Your task to perform on an android device: toggle notifications settings in the gmail app Image 0: 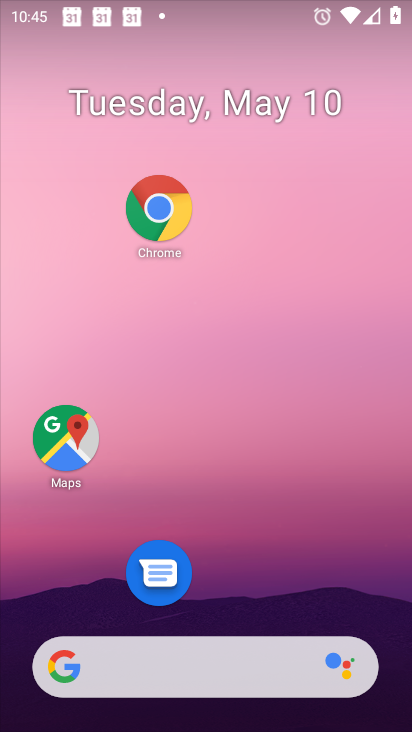
Step 0: drag from (282, 655) to (239, 212)
Your task to perform on an android device: toggle notifications settings in the gmail app Image 1: 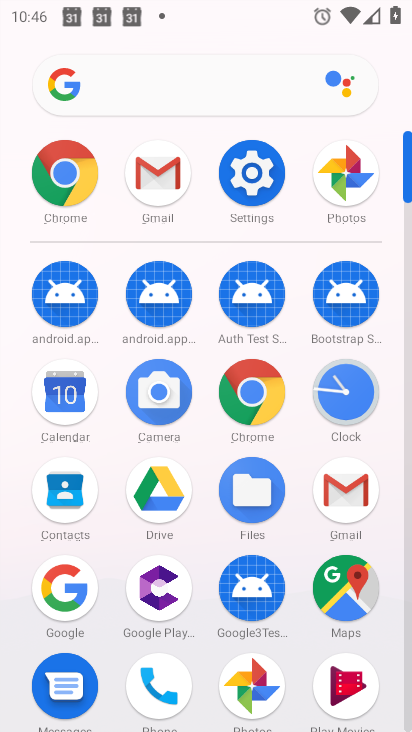
Step 1: click (355, 485)
Your task to perform on an android device: toggle notifications settings in the gmail app Image 2: 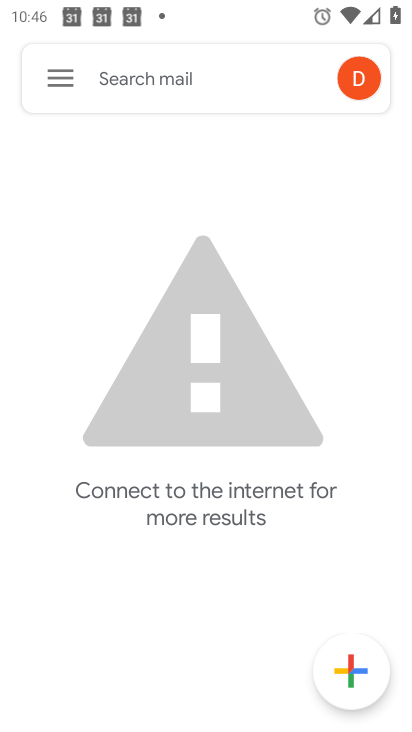
Step 2: click (62, 82)
Your task to perform on an android device: toggle notifications settings in the gmail app Image 3: 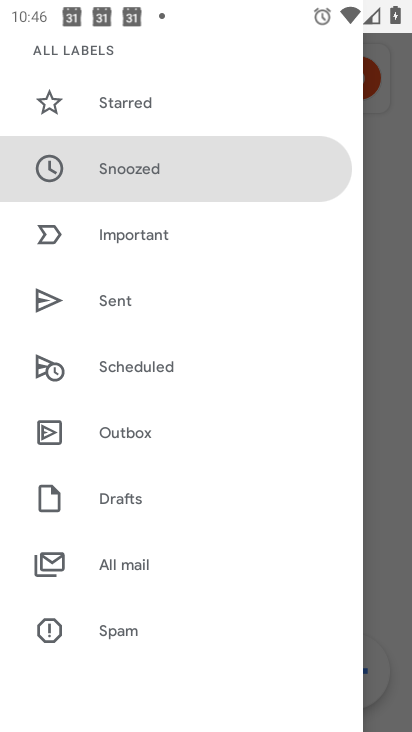
Step 3: drag from (143, 600) to (196, 390)
Your task to perform on an android device: toggle notifications settings in the gmail app Image 4: 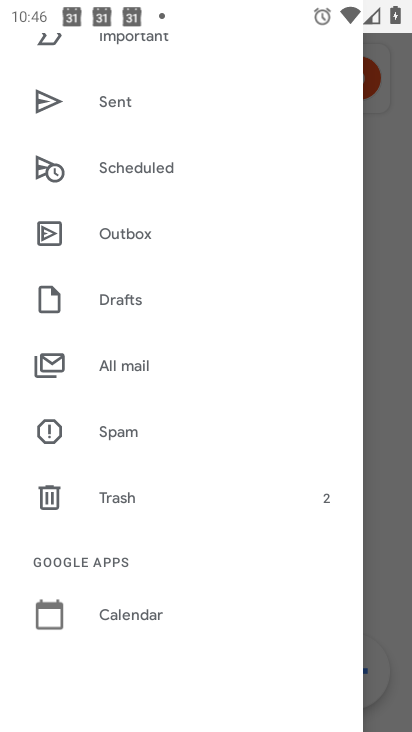
Step 4: drag from (151, 607) to (175, 427)
Your task to perform on an android device: toggle notifications settings in the gmail app Image 5: 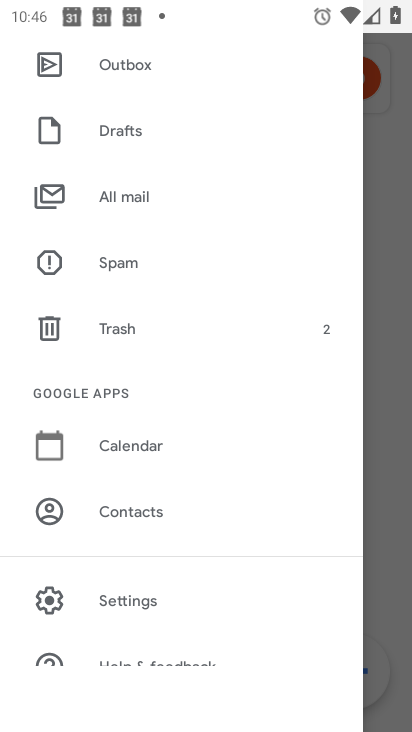
Step 5: click (131, 592)
Your task to perform on an android device: toggle notifications settings in the gmail app Image 6: 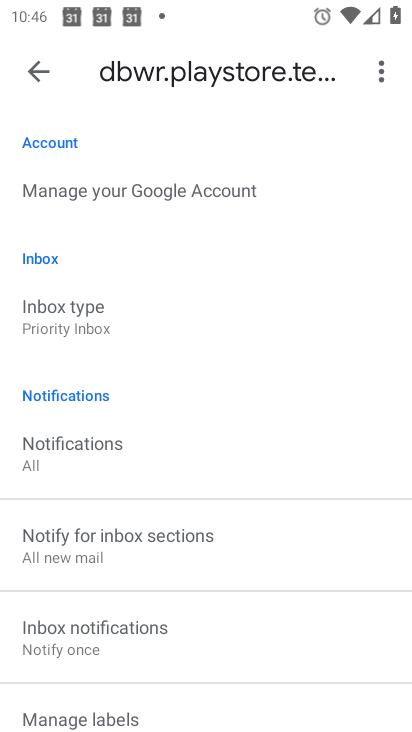
Step 6: click (89, 454)
Your task to perform on an android device: toggle notifications settings in the gmail app Image 7: 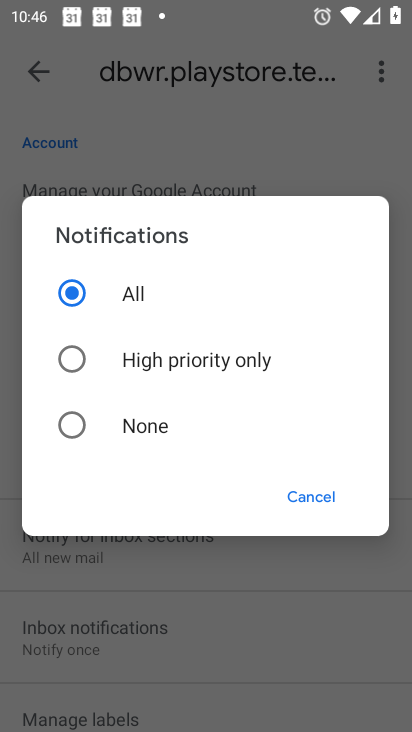
Step 7: task complete